Your task to perform on an android device: Open display settings Image 0: 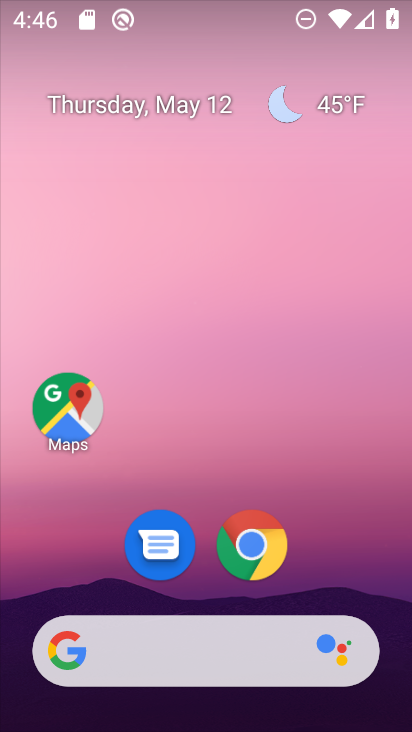
Step 0: drag from (340, 554) to (274, 108)
Your task to perform on an android device: Open display settings Image 1: 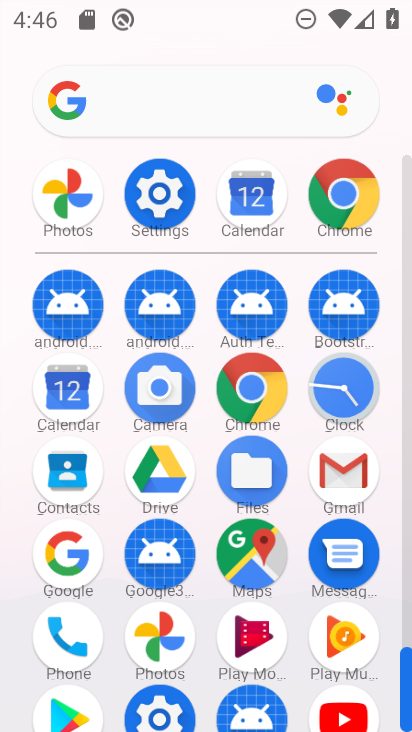
Step 1: click (163, 196)
Your task to perform on an android device: Open display settings Image 2: 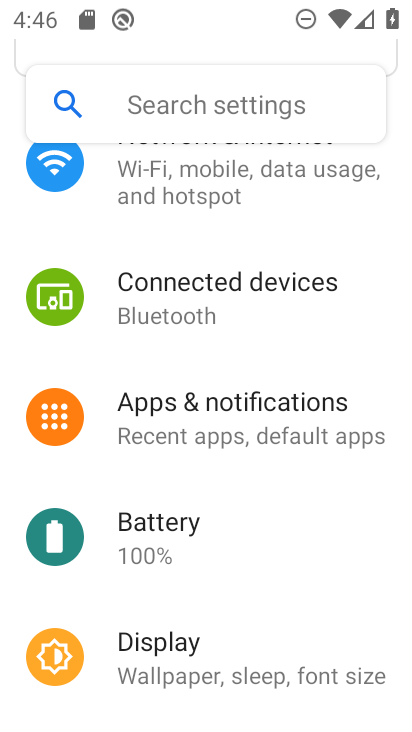
Step 2: drag from (278, 221) to (332, 55)
Your task to perform on an android device: Open display settings Image 3: 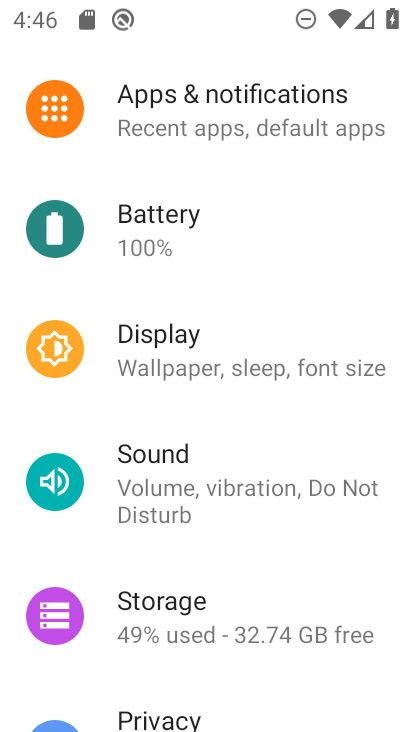
Step 3: click (194, 372)
Your task to perform on an android device: Open display settings Image 4: 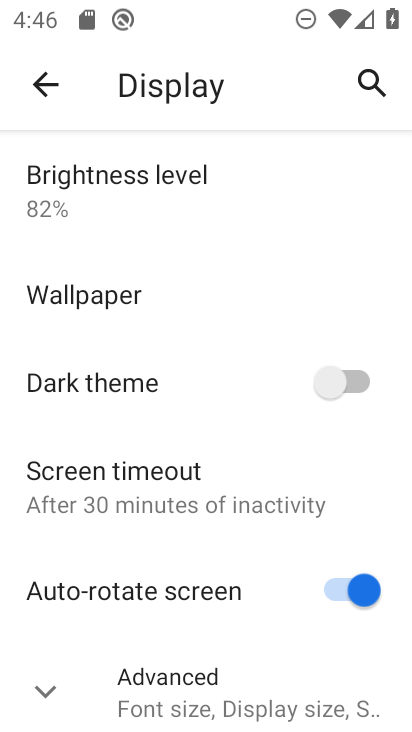
Step 4: task complete